Your task to perform on an android device: Open notification settings Image 0: 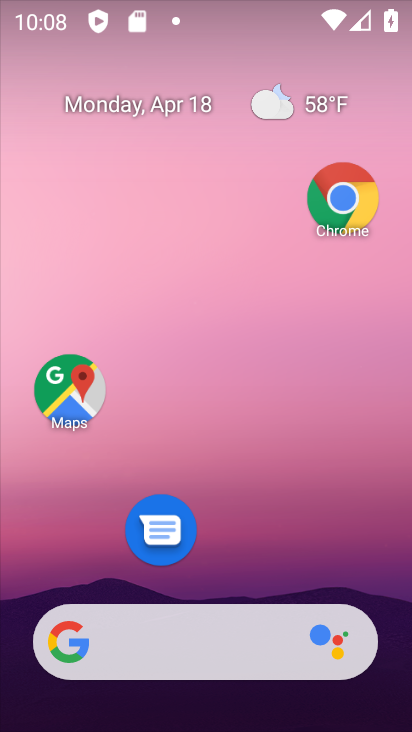
Step 0: drag from (223, 524) to (292, 115)
Your task to perform on an android device: Open notification settings Image 1: 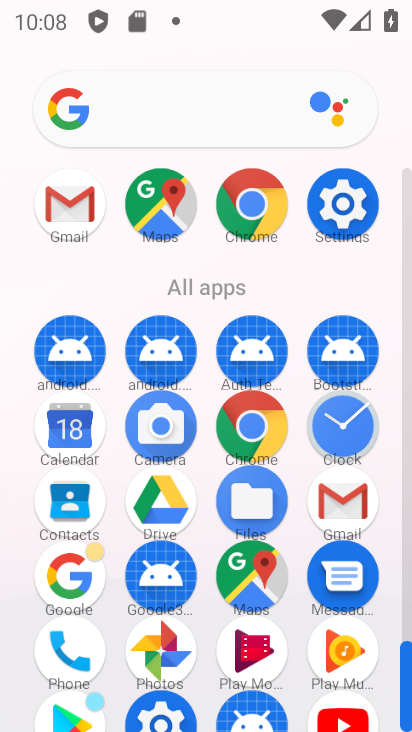
Step 1: click (338, 213)
Your task to perform on an android device: Open notification settings Image 2: 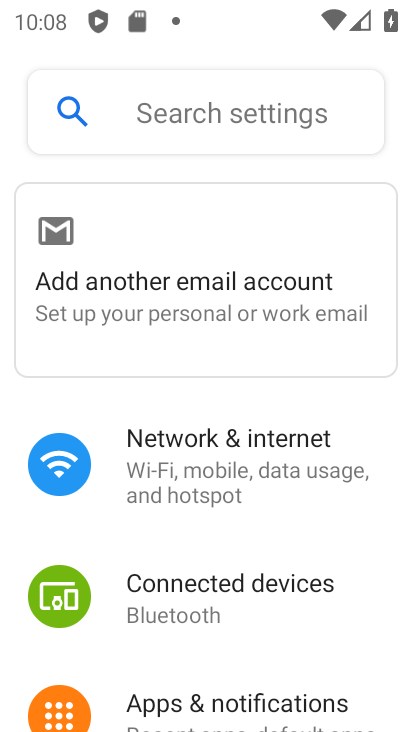
Step 2: click (215, 704)
Your task to perform on an android device: Open notification settings Image 3: 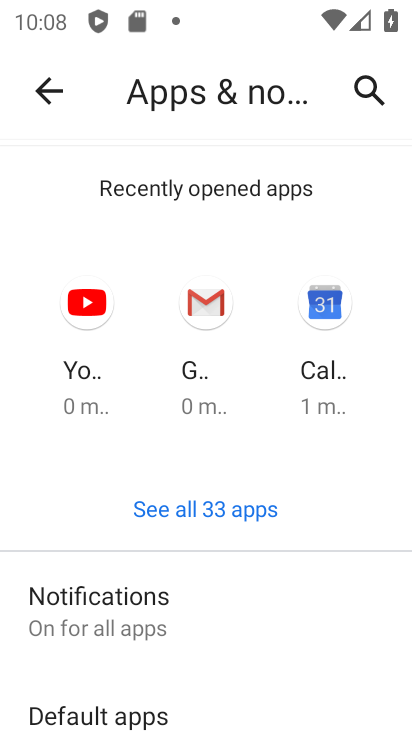
Step 3: drag from (135, 637) to (189, 388)
Your task to perform on an android device: Open notification settings Image 4: 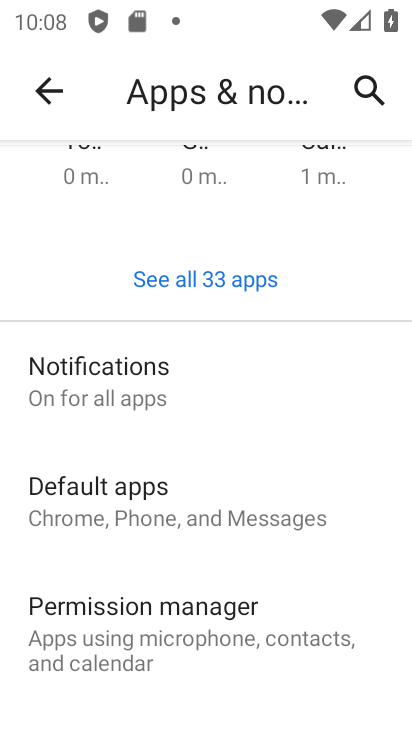
Step 4: click (116, 366)
Your task to perform on an android device: Open notification settings Image 5: 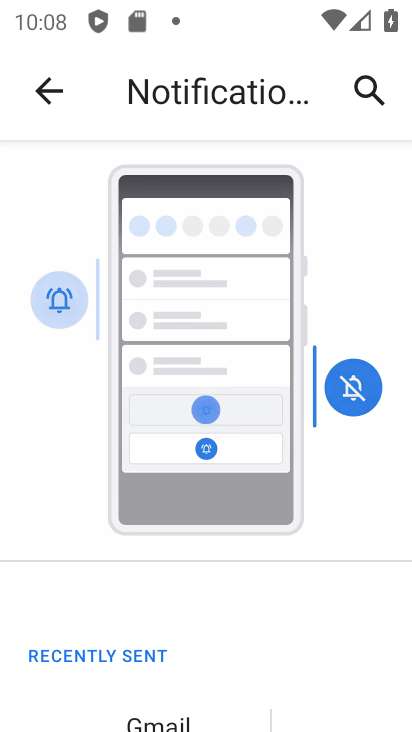
Step 5: task complete